Your task to perform on an android device: Find coffee shops on Maps Image 0: 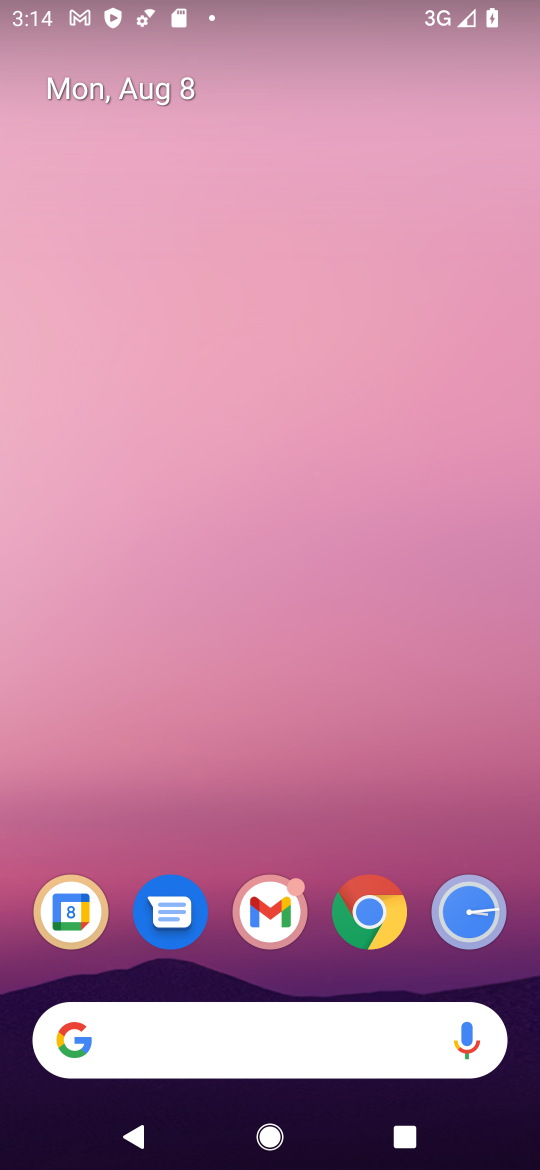
Step 0: drag from (271, 640) to (511, 220)
Your task to perform on an android device: Find coffee shops on Maps Image 1: 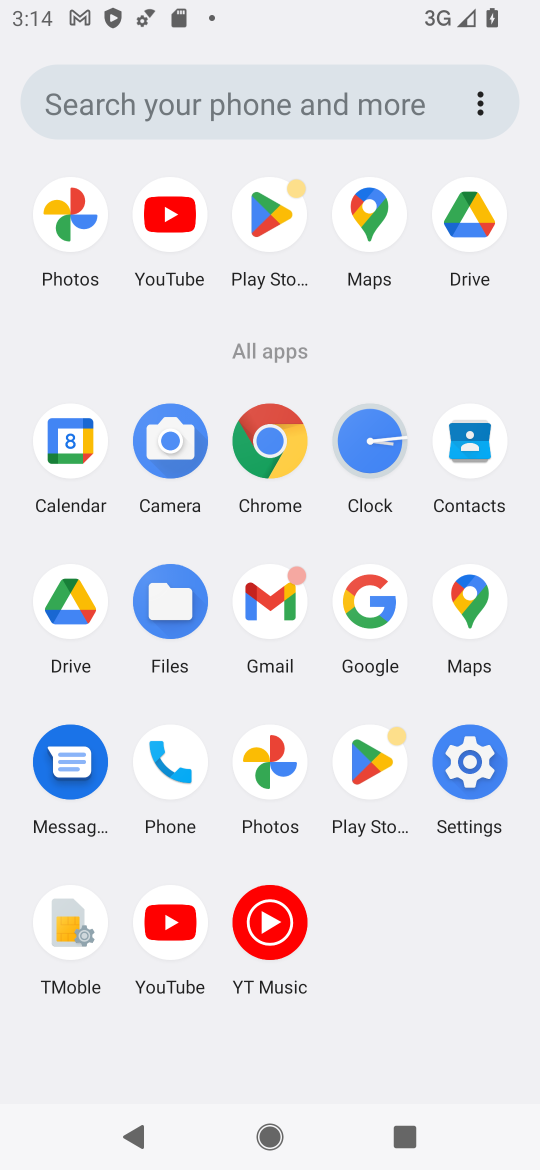
Step 1: click (475, 613)
Your task to perform on an android device: Find coffee shops on Maps Image 2: 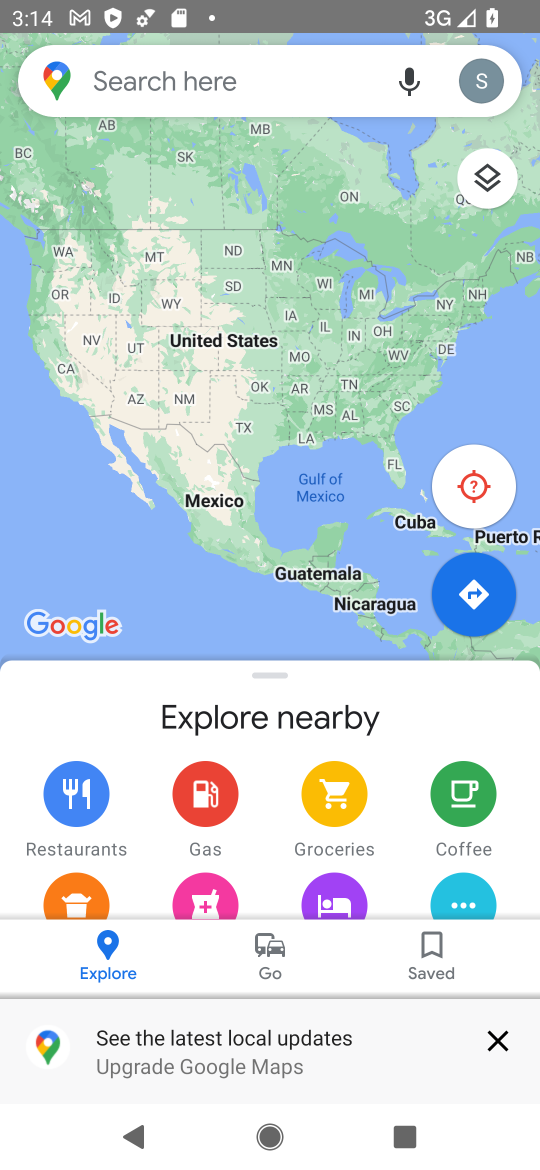
Step 2: click (191, 98)
Your task to perform on an android device: Find coffee shops on Maps Image 3: 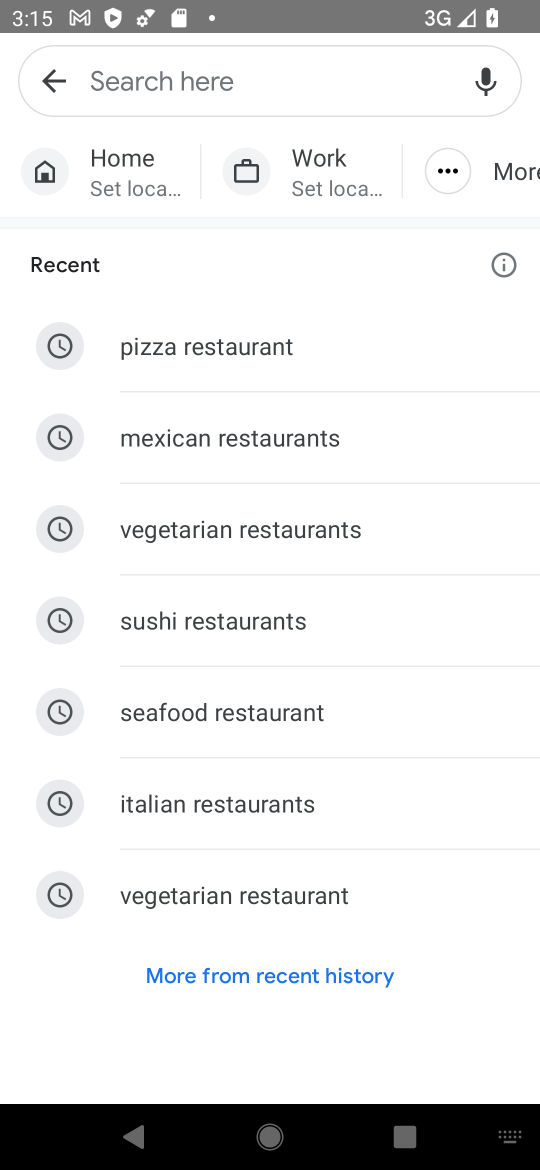
Step 3: click (158, 82)
Your task to perform on an android device: Find coffee shops on Maps Image 4: 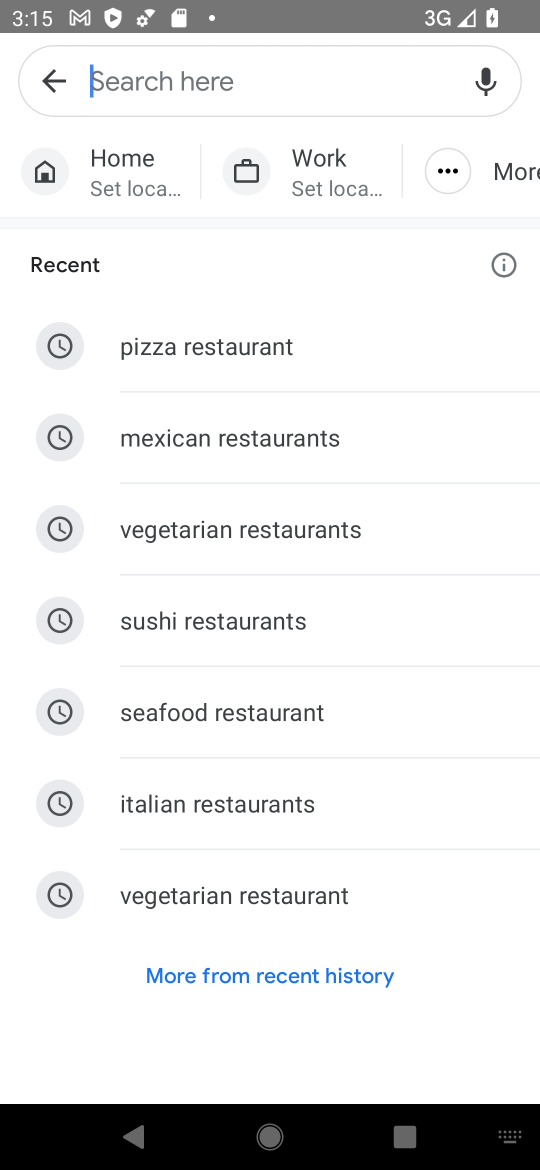
Step 4: type "coffee"
Your task to perform on an android device: Find coffee shops on Maps Image 5: 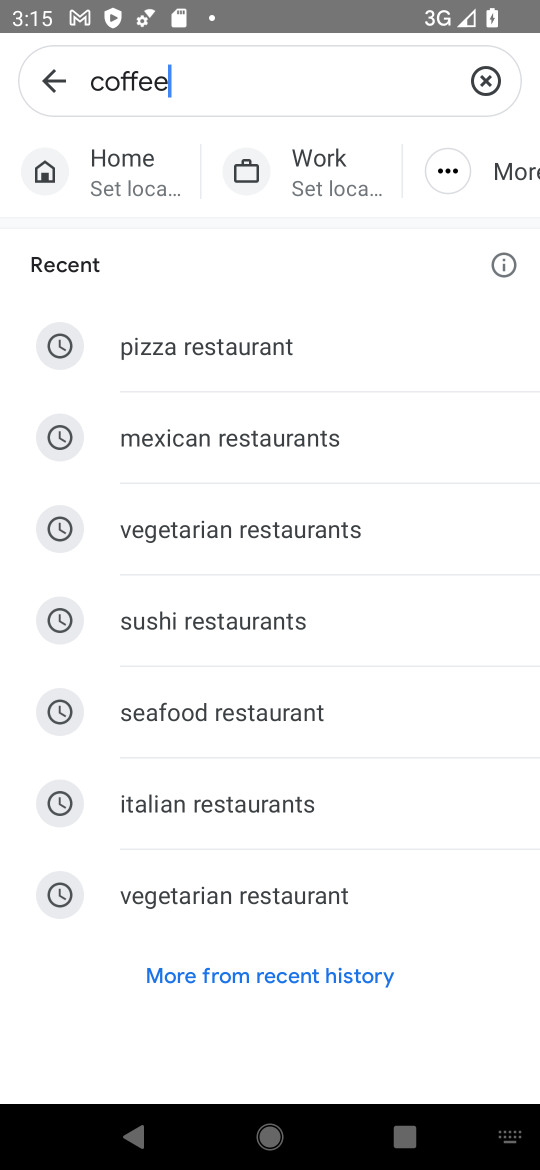
Step 5: type ""
Your task to perform on an android device: Find coffee shops on Maps Image 6: 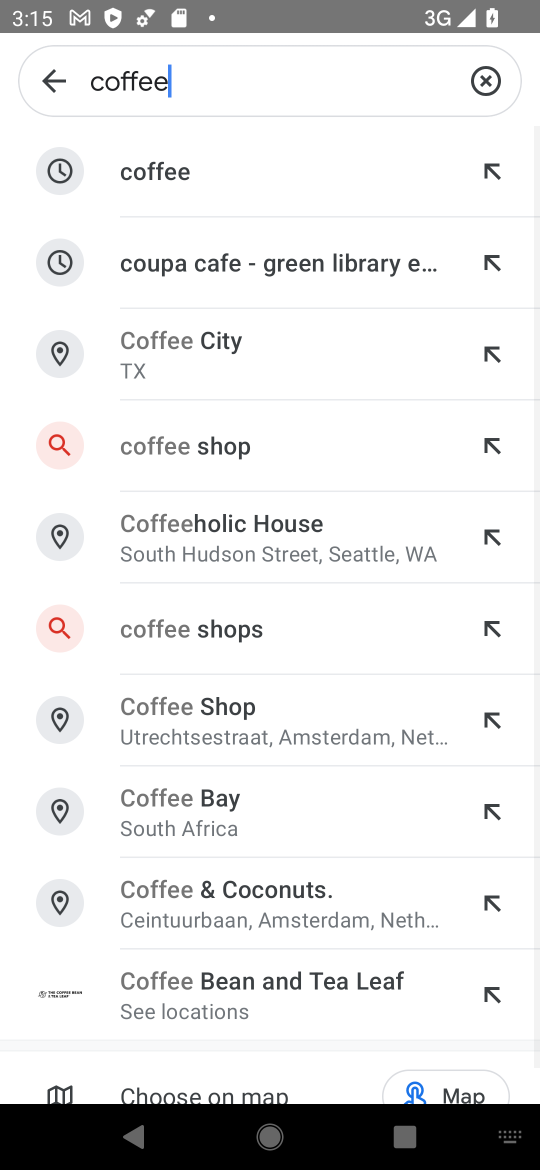
Step 6: click (238, 160)
Your task to perform on an android device: Find coffee shops on Maps Image 7: 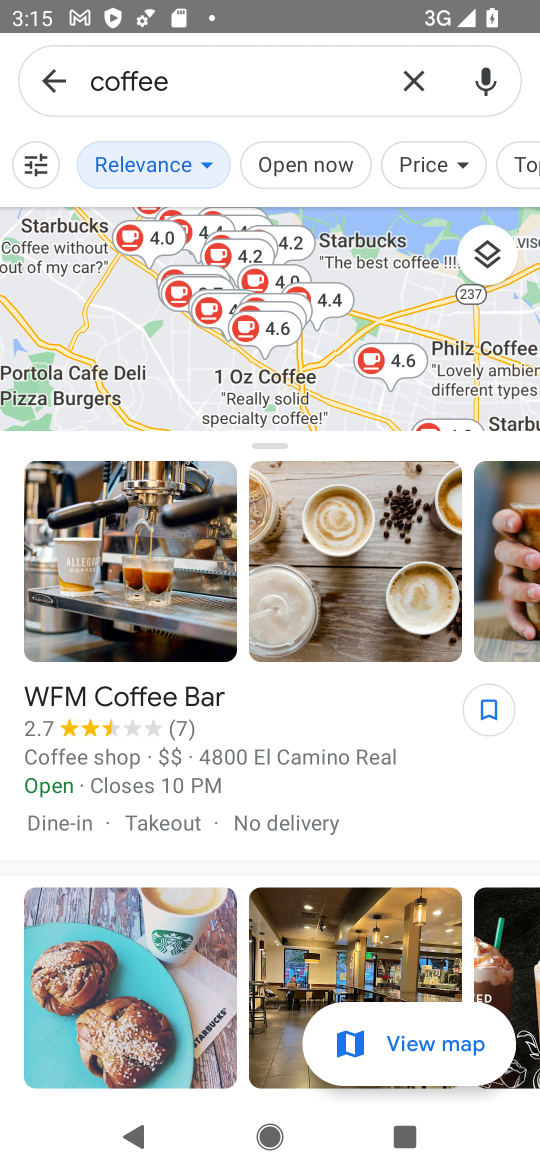
Step 7: task complete